Your task to perform on an android device: see sites visited before in the chrome app Image 0: 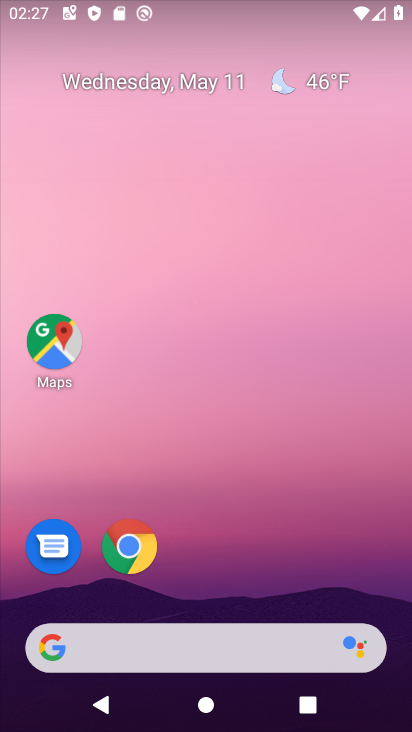
Step 0: drag from (268, 281) to (295, 186)
Your task to perform on an android device: see sites visited before in the chrome app Image 1: 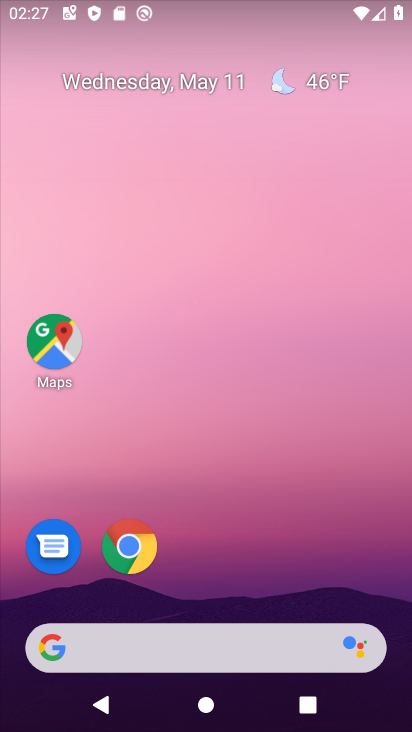
Step 1: drag from (217, 530) to (284, 130)
Your task to perform on an android device: see sites visited before in the chrome app Image 2: 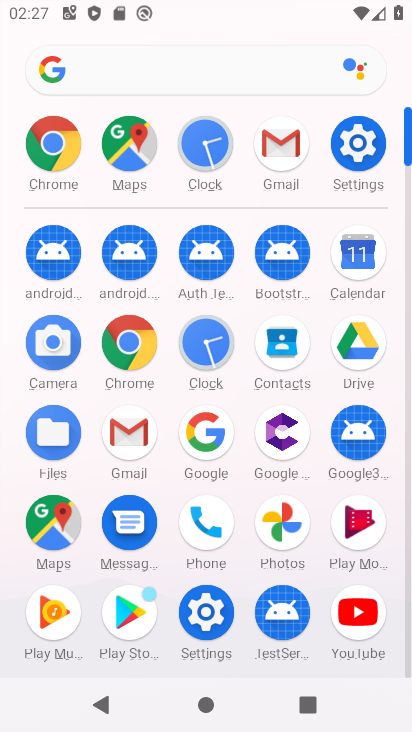
Step 2: click (131, 351)
Your task to perform on an android device: see sites visited before in the chrome app Image 3: 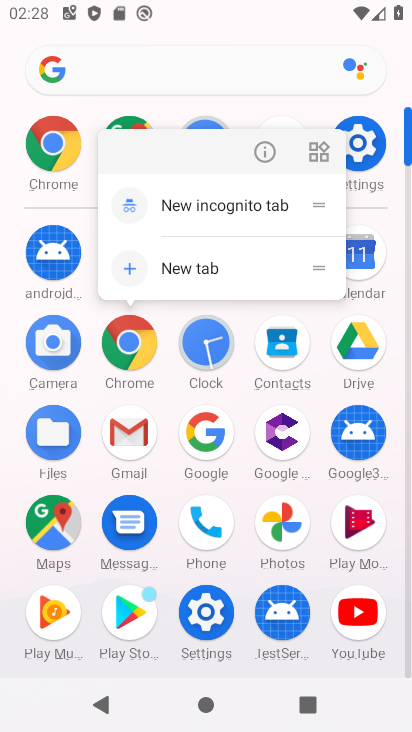
Step 3: click (260, 154)
Your task to perform on an android device: see sites visited before in the chrome app Image 4: 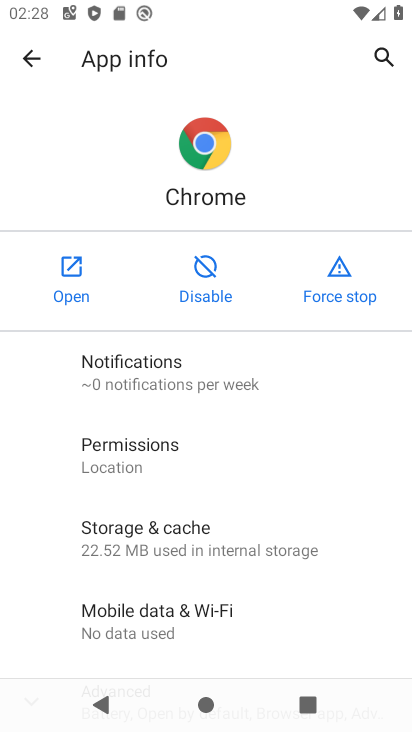
Step 4: click (69, 272)
Your task to perform on an android device: see sites visited before in the chrome app Image 5: 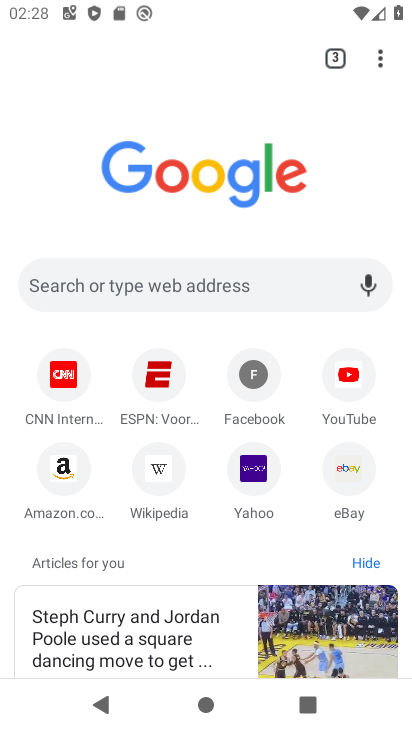
Step 5: drag from (201, 560) to (225, 285)
Your task to perform on an android device: see sites visited before in the chrome app Image 6: 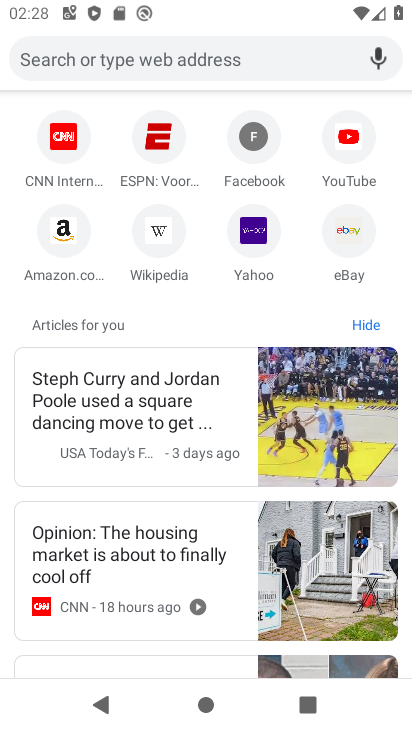
Step 6: drag from (230, 271) to (201, 604)
Your task to perform on an android device: see sites visited before in the chrome app Image 7: 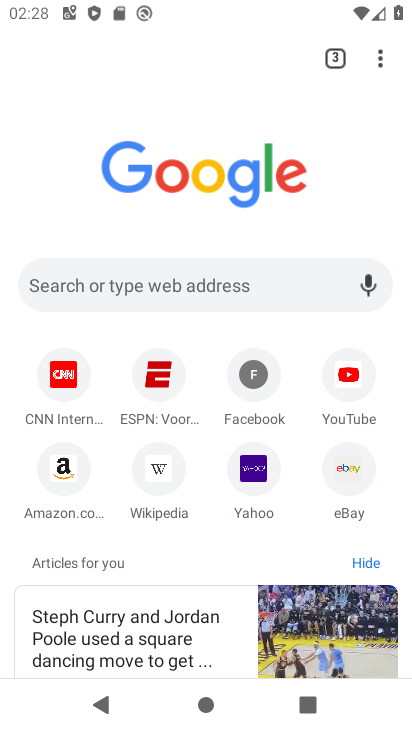
Step 7: drag from (389, 54) to (222, 229)
Your task to perform on an android device: see sites visited before in the chrome app Image 8: 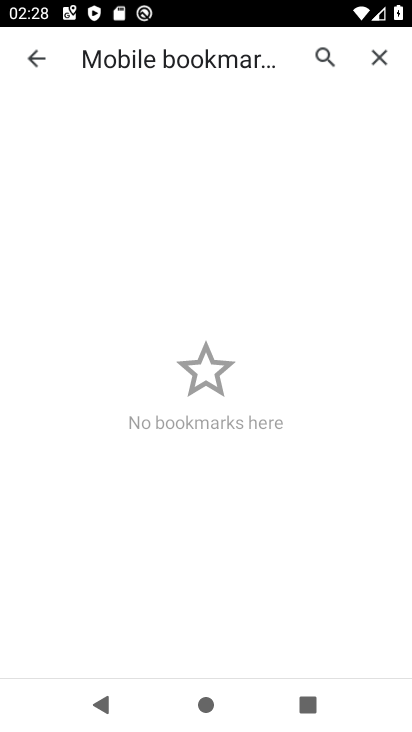
Step 8: drag from (222, 537) to (321, 259)
Your task to perform on an android device: see sites visited before in the chrome app Image 9: 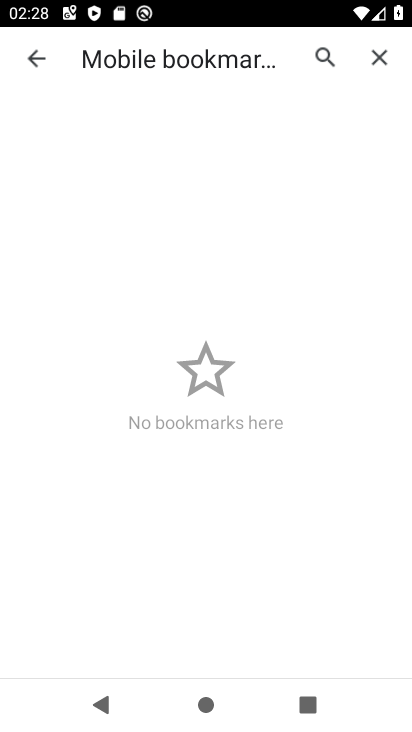
Step 9: drag from (271, 208) to (271, 405)
Your task to perform on an android device: see sites visited before in the chrome app Image 10: 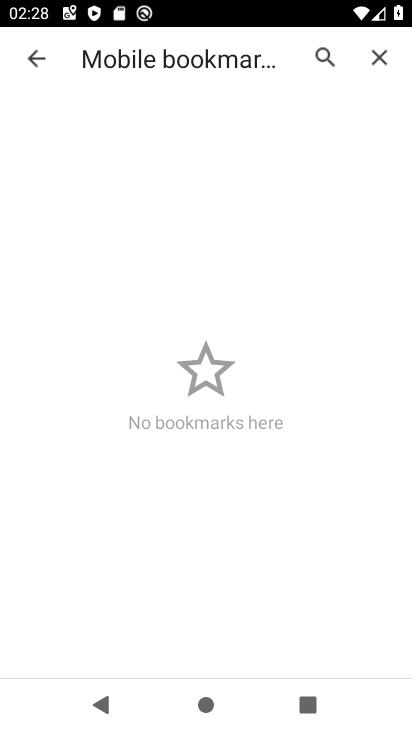
Step 10: drag from (290, 276) to (257, 554)
Your task to perform on an android device: see sites visited before in the chrome app Image 11: 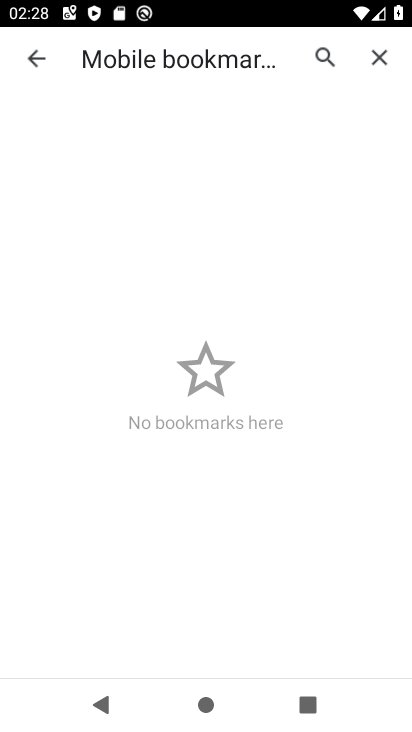
Step 11: drag from (98, 366) to (284, 503)
Your task to perform on an android device: see sites visited before in the chrome app Image 12: 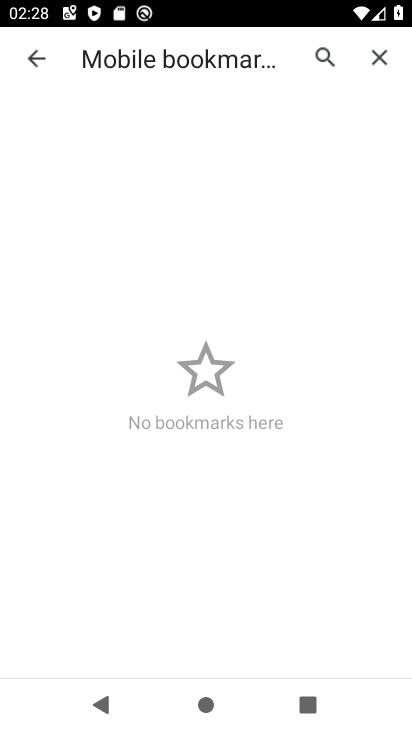
Step 12: drag from (202, 532) to (222, 467)
Your task to perform on an android device: see sites visited before in the chrome app Image 13: 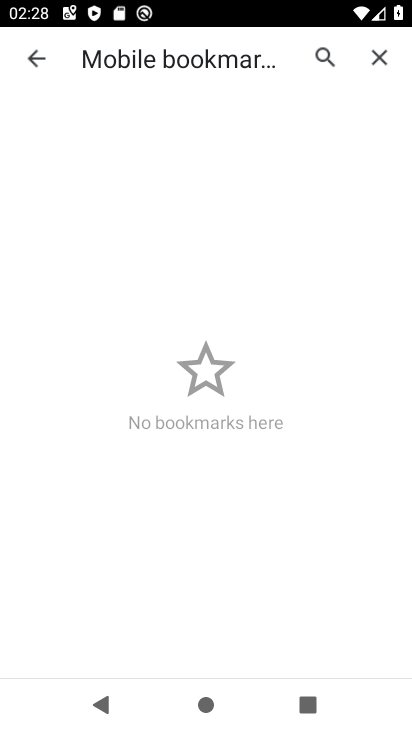
Step 13: click (291, 289)
Your task to perform on an android device: see sites visited before in the chrome app Image 14: 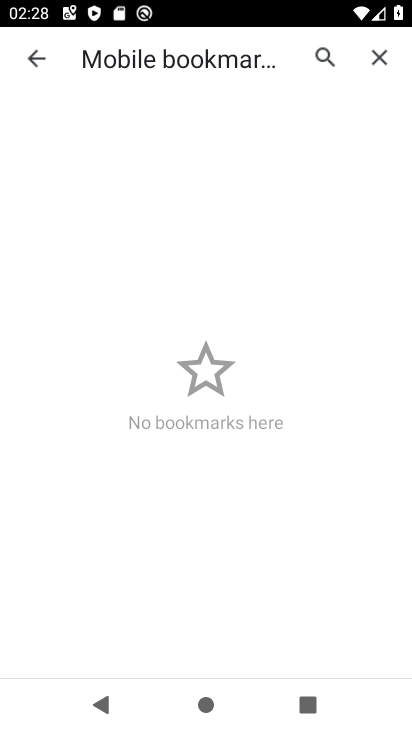
Step 14: task complete